Your task to perform on an android device: add a contact Image 0: 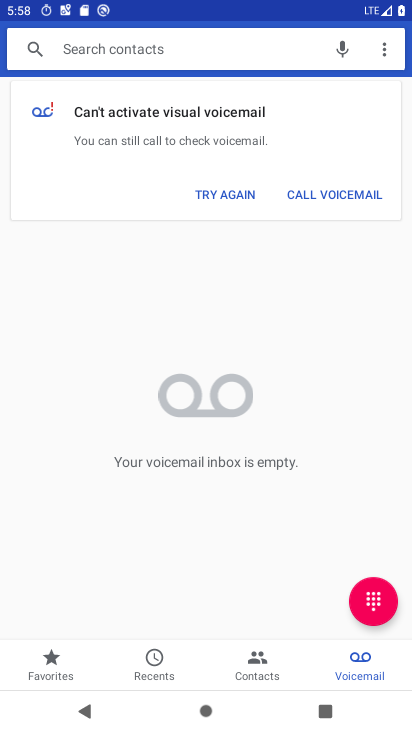
Step 0: press home button
Your task to perform on an android device: add a contact Image 1: 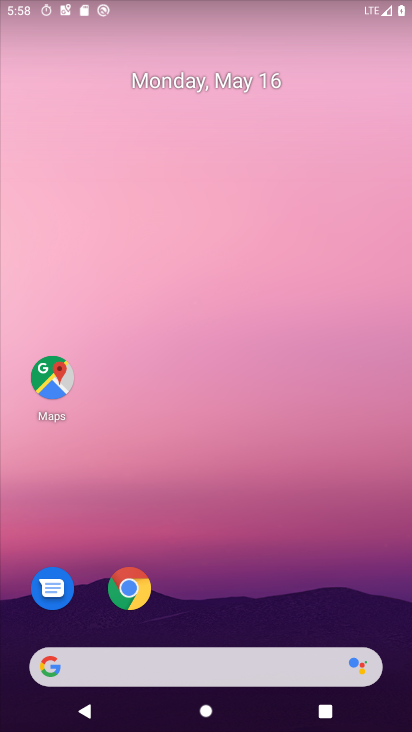
Step 1: drag from (237, 385) to (198, 63)
Your task to perform on an android device: add a contact Image 2: 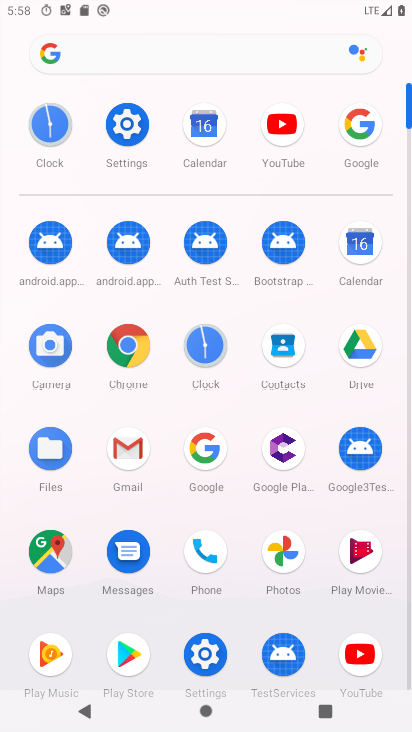
Step 2: click (266, 343)
Your task to perform on an android device: add a contact Image 3: 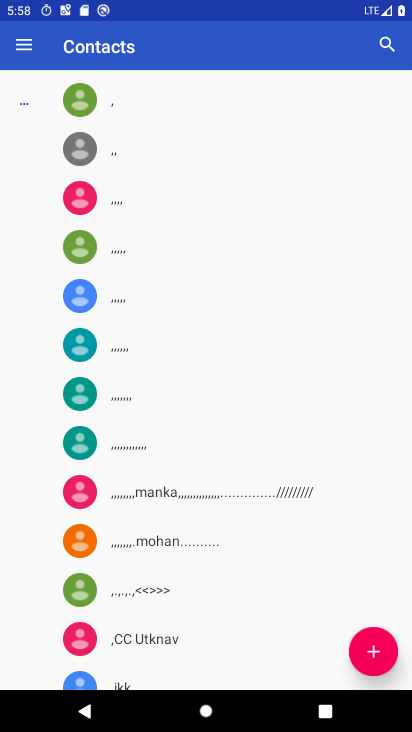
Step 3: click (369, 645)
Your task to perform on an android device: add a contact Image 4: 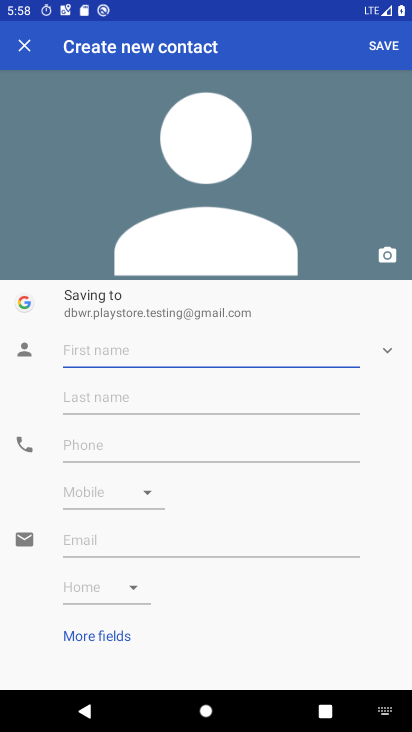
Step 4: type "rfgsf"
Your task to perform on an android device: add a contact Image 5: 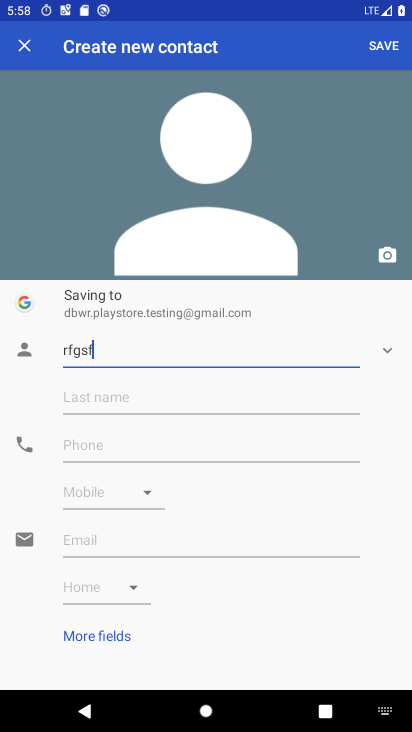
Step 5: type ""
Your task to perform on an android device: add a contact Image 6: 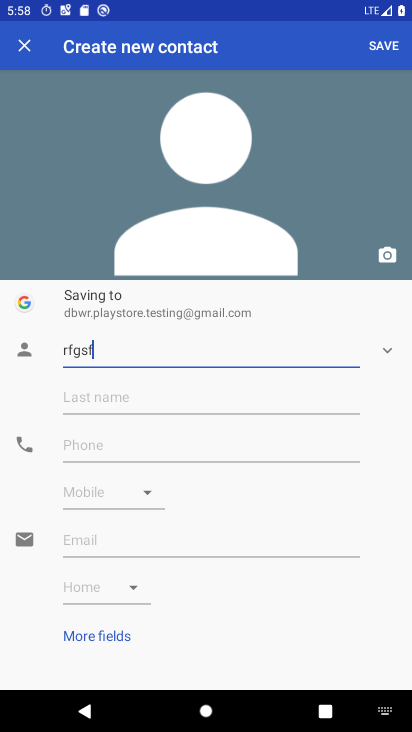
Step 6: click (179, 403)
Your task to perform on an android device: add a contact Image 7: 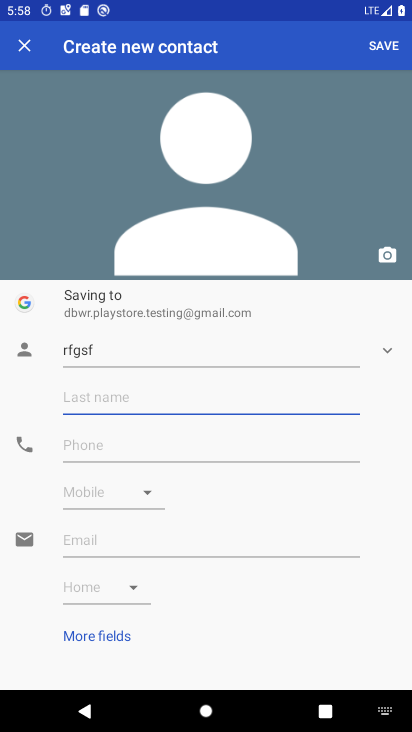
Step 7: type "gs"
Your task to perform on an android device: add a contact Image 8: 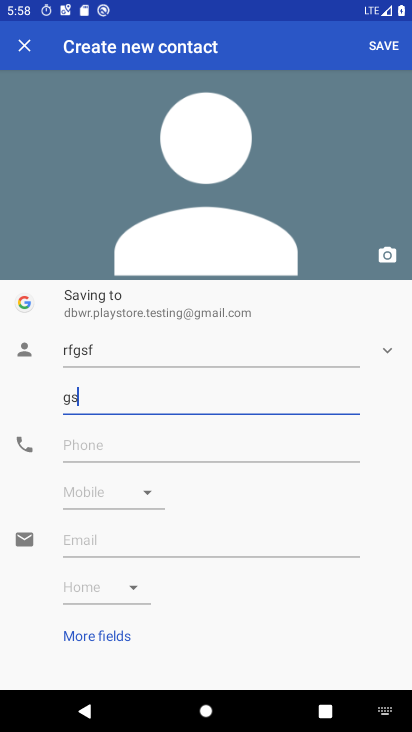
Step 8: type ""
Your task to perform on an android device: add a contact Image 9: 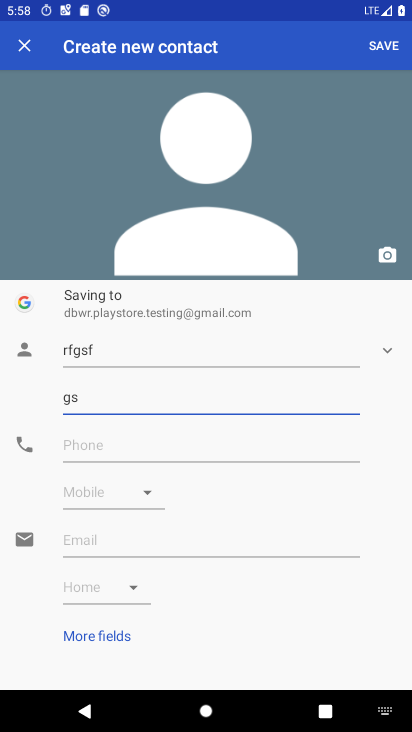
Step 9: click (161, 440)
Your task to perform on an android device: add a contact Image 10: 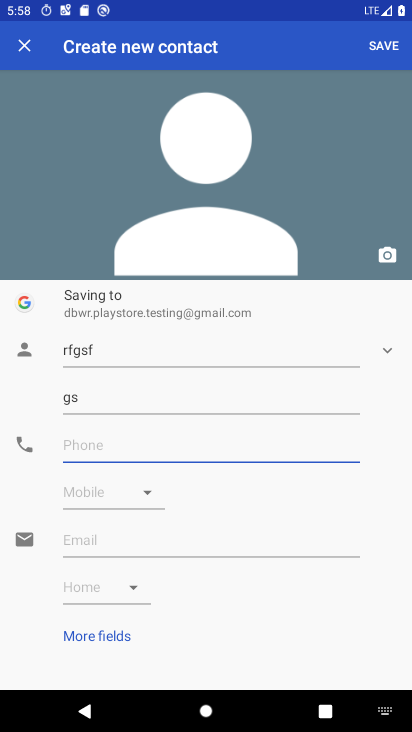
Step 10: type "5634563"
Your task to perform on an android device: add a contact Image 11: 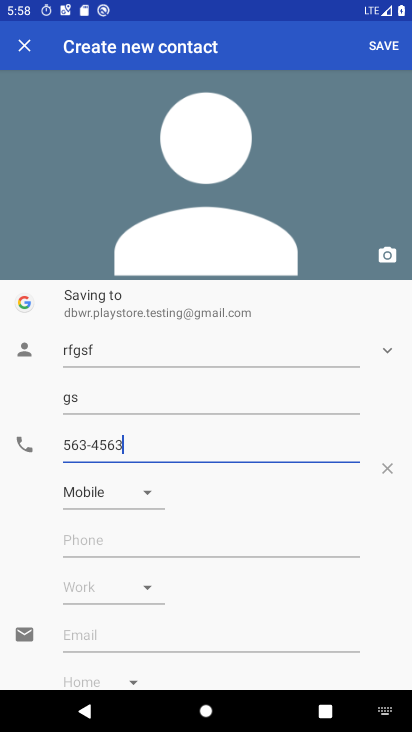
Step 11: type ""
Your task to perform on an android device: add a contact Image 12: 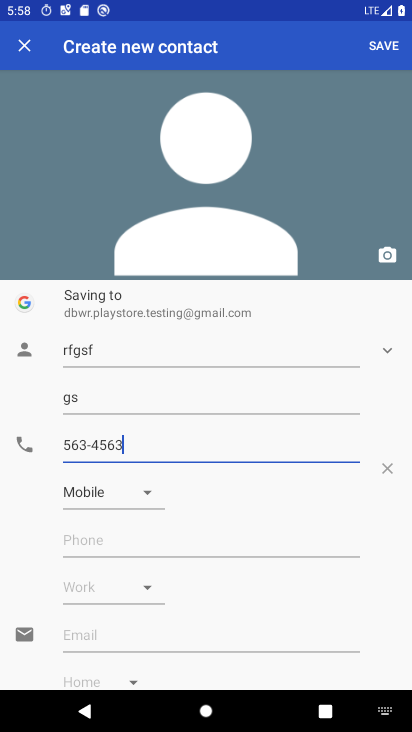
Step 12: click (386, 43)
Your task to perform on an android device: add a contact Image 13: 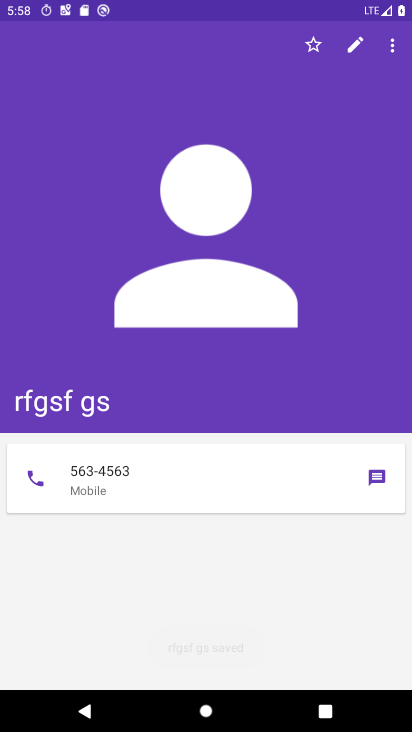
Step 13: task complete